Your task to perform on an android device: turn on data saver in the chrome app Image 0: 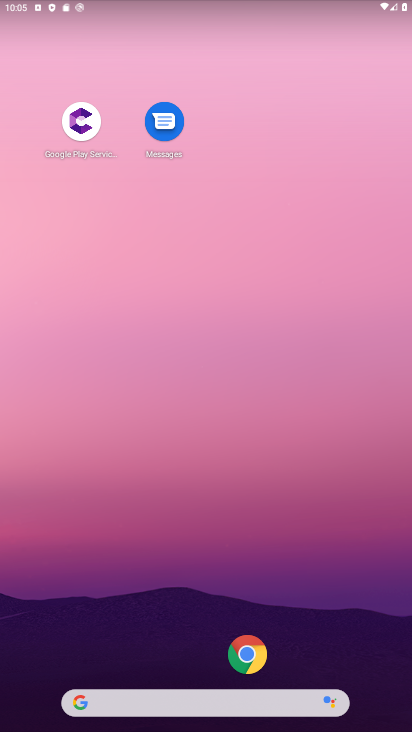
Step 0: click (247, 651)
Your task to perform on an android device: turn on data saver in the chrome app Image 1: 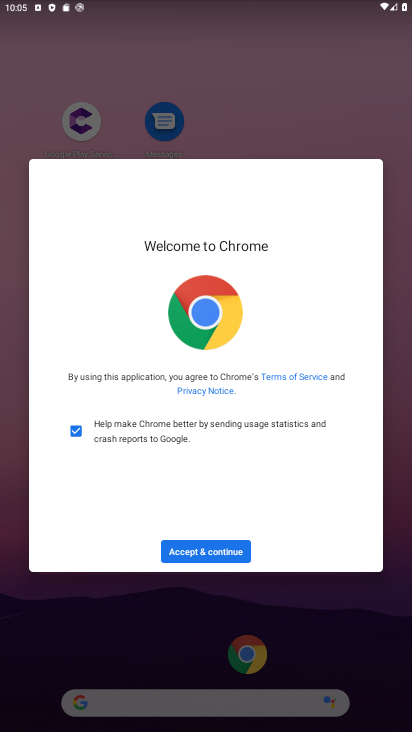
Step 1: click (194, 548)
Your task to perform on an android device: turn on data saver in the chrome app Image 2: 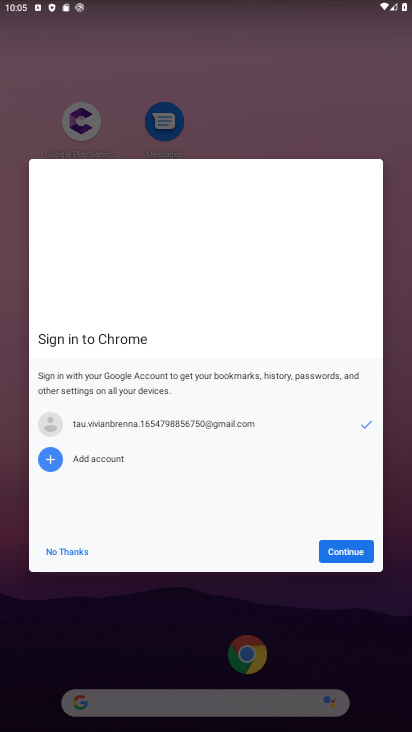
Step 2: click (365, 550)
Your task to perform on an android device: turn on data saver in the chrome app Image 3: 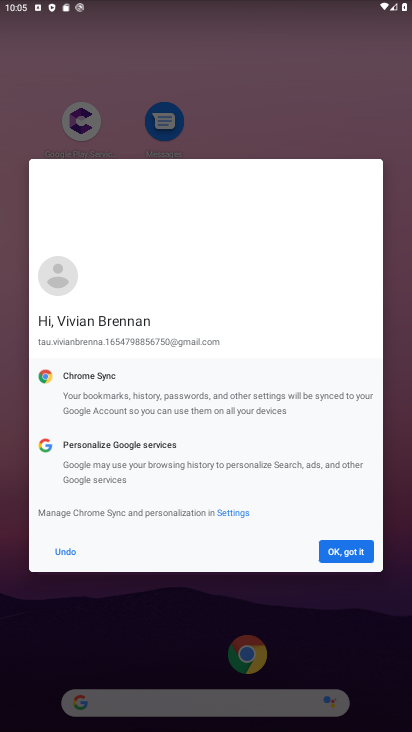
Step 3: click (365, 550)
Your task to perform on an android device: turn on data saver in the chrome app Image 4: 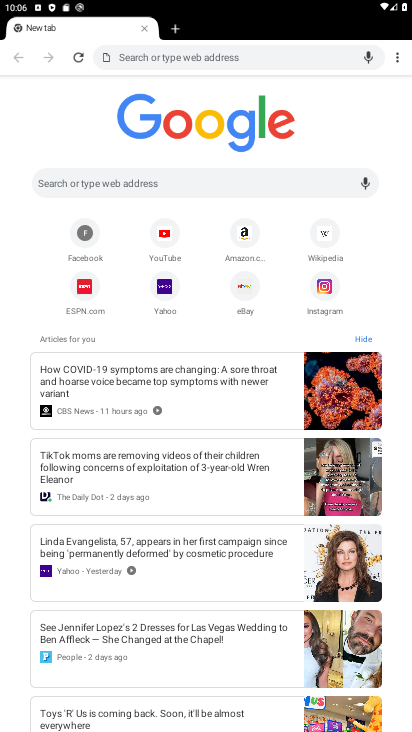
Step 4: click (391, 45)
Your task to perform on an android device: turn on data saver in the chrome app Image 5: 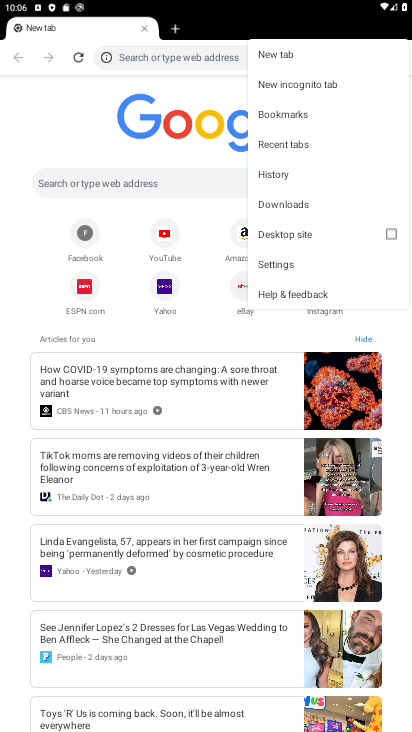
Step 5: click (283, 270)
Your task to perform on an android device: turn on data saver in the chrome app Image 6: 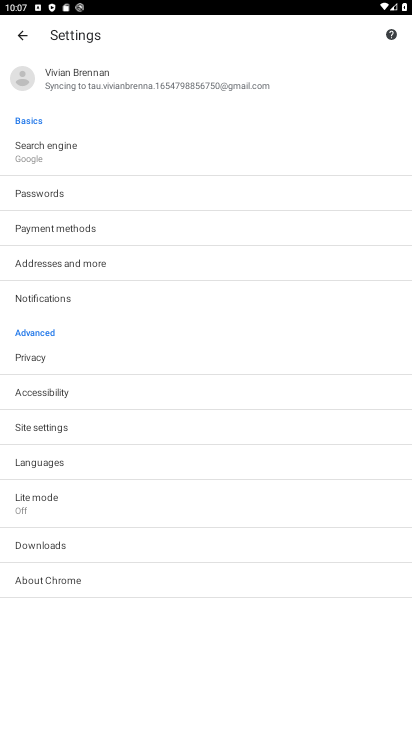
Step 6: click (100, 485)
Your task to perform on an android device: turn on data saver in the chrome app Image 7: 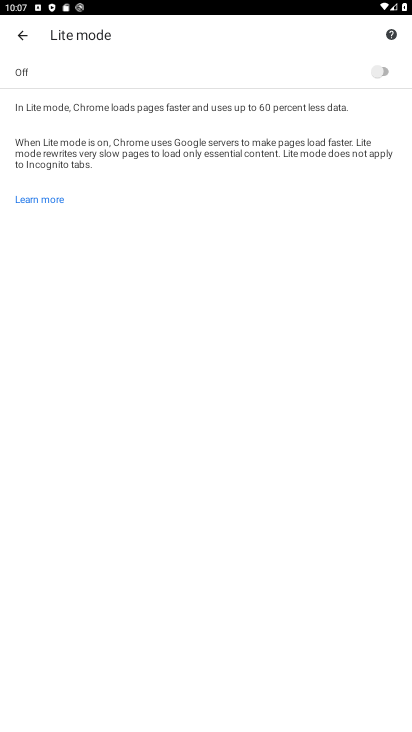
Step 7: click (372, 86)
Your task to perform on an android device: turn on data saver in the chrome app Image 8: 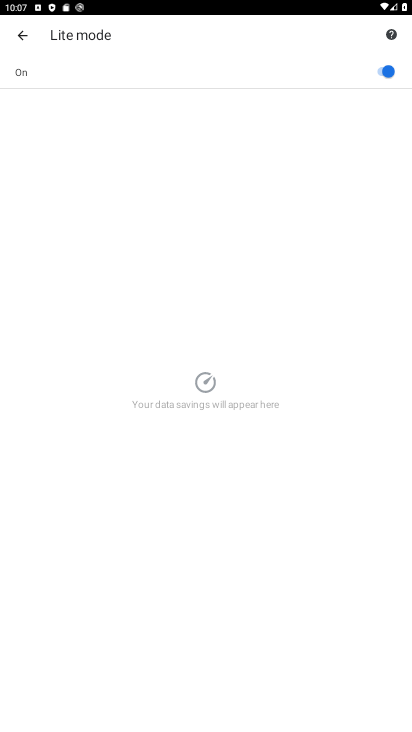
Step 8: task complete